Your task to perform on an android device: turn on showing notifications on the lock screen Image 0: 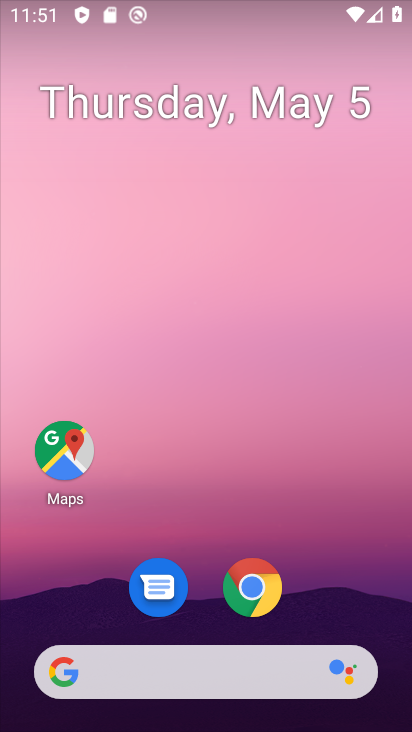
Step 0: drag from (386, 619) to (359, 531)
Your task to perform on an android device: turn on showing notifications on the lock screen Image 1: 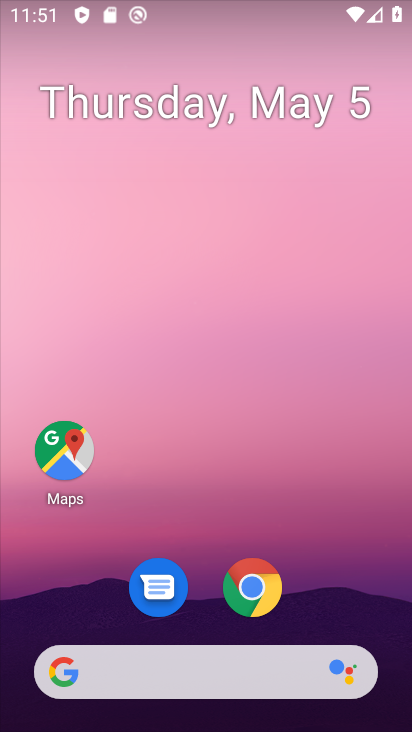
Step 1: drag from (348, 484) to (305, 164)
Your task to perform on an android device: turn on showing notifications on the lock screen Image 2: 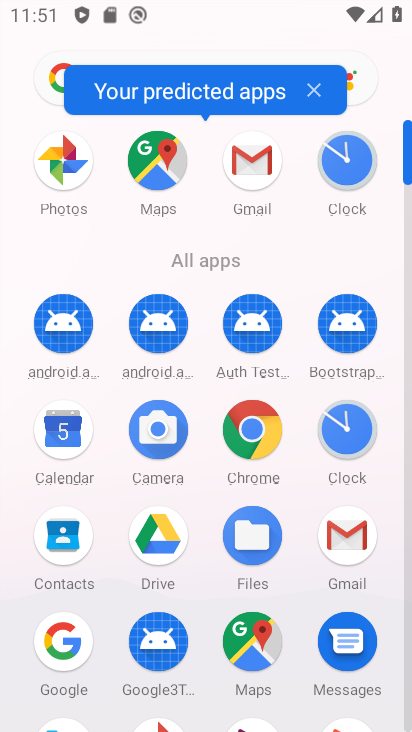
Step 2: drag from (297, 656) to (251, 360)
Your task to perform on an android device: turn on showing notifications on the lock screen Image 3: 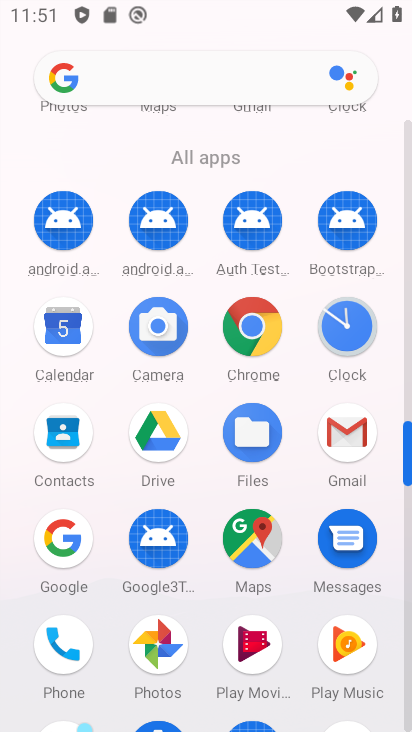
Step 3: drag from (282, 656) to (279, 350)
Your task to perform on an android device: turn on showing notifications on the lock screen Image 4: 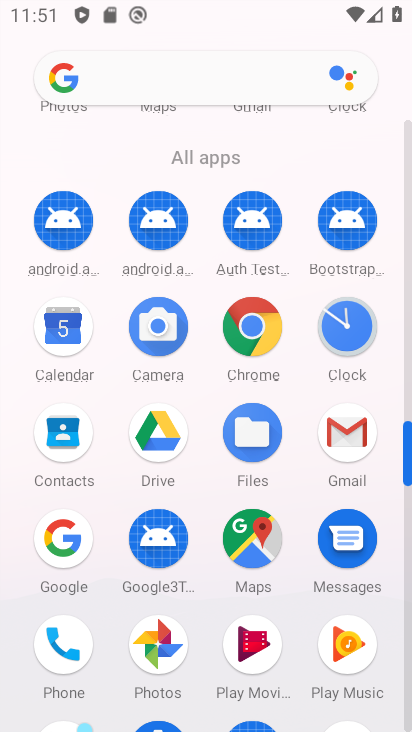
Step 4: drag from (405, 412) to (397, 274)
Your task to perform on an android device: turn on showing notifications on the lock screen Image 5: 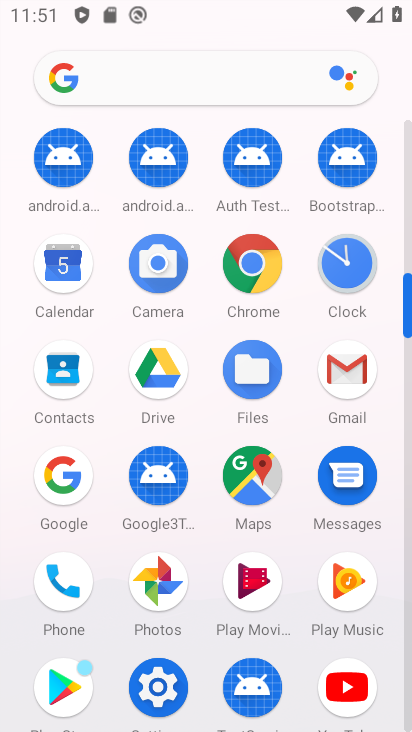
Step 5: click (154, 675)
Your task to perform on an android device: turn on showing notifications on the lock screen Image 6: 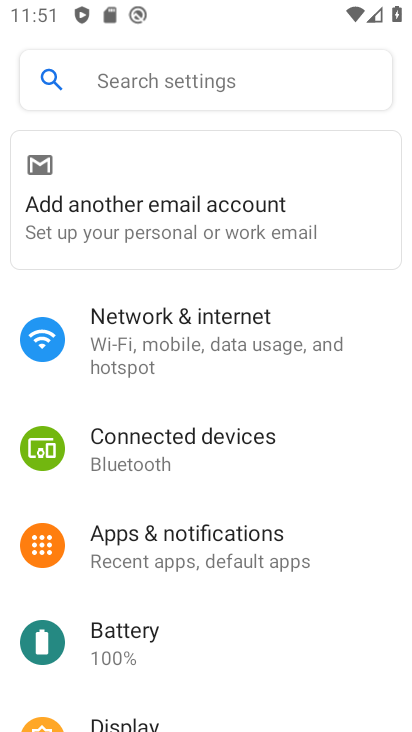
Step 6: click (195, 540)
Your task to perform on an android device: turn on showing notifications on the lock screen Image 7: 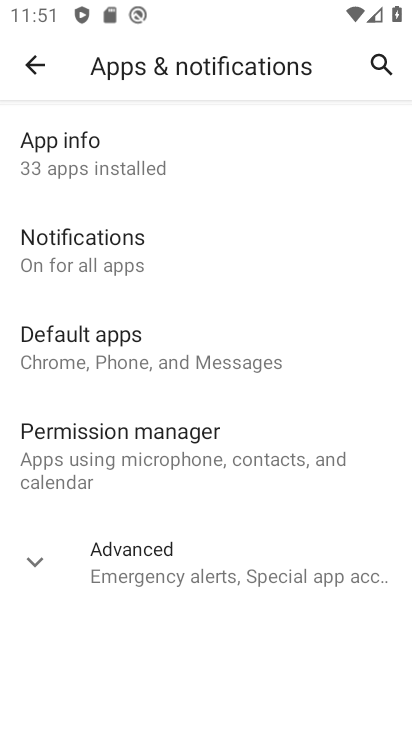
Step 7: drag from (303, 626) to (214, 246)
Your task to perform on an android device: turn on showing notifications on the lock screen Image 8: 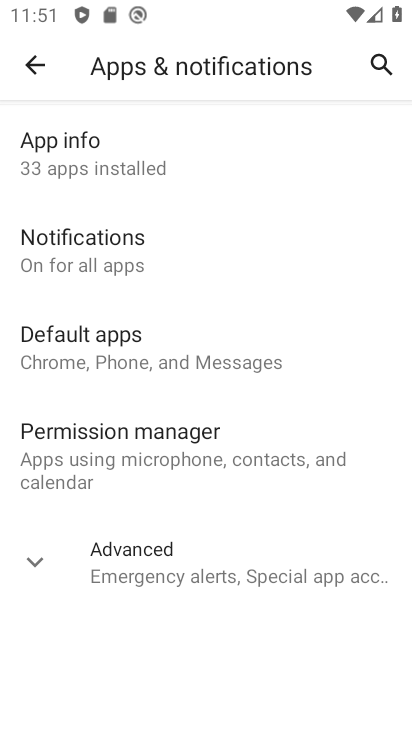
Step 8: click (28, 66)
Your task to perform on an android device: turn on showing notifications on the lock screen Image 9: 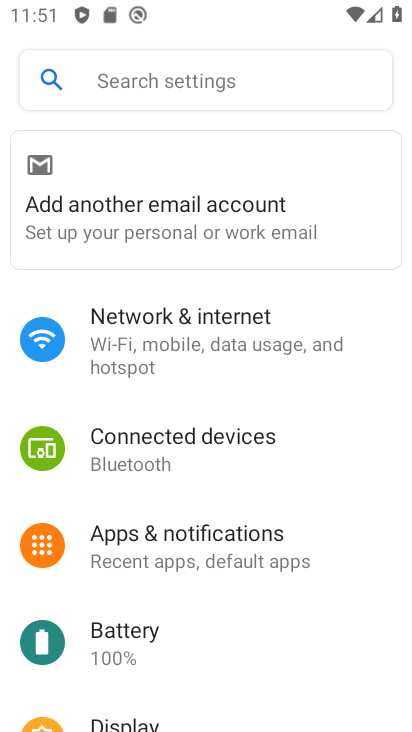
Step 9: click (129, 544)
Your task to perform on an android device: turn on showing notifications on the lock screen Image 10: 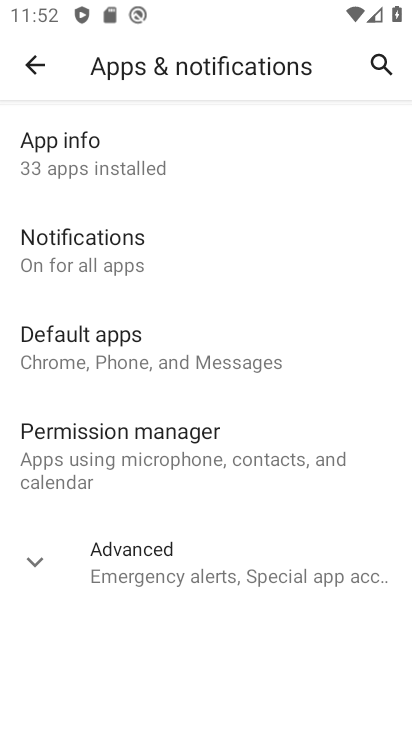
Step 10: drag from (288, 164) to (306, 510)
Your task to perform on an android device: turn on showing notifications on the lock screen Image 11: 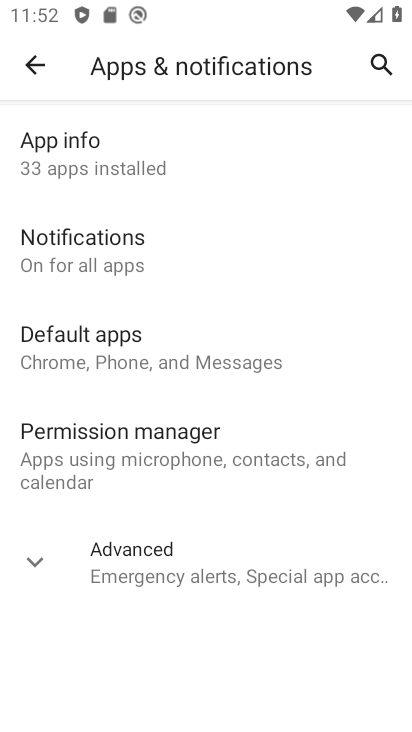
Step 11: click (21, 558)
Your task to perform on an android device: turn on showing notifications on the lock screen Image 12: 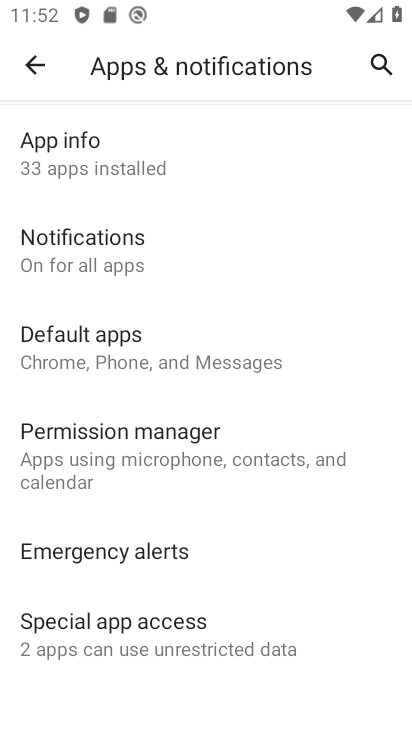
Step 12: click (101, 243)
Your task to perform on an android device: turn on showing notifications on the lock screen Image 13: 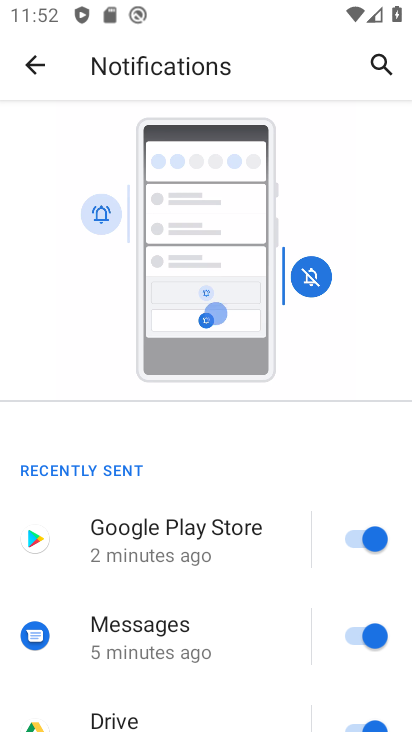
Step 13: drag from (286, 688) to (197, 378)
Your task to perform on an android device: turn on showing notifications on the lock screen Image 14: 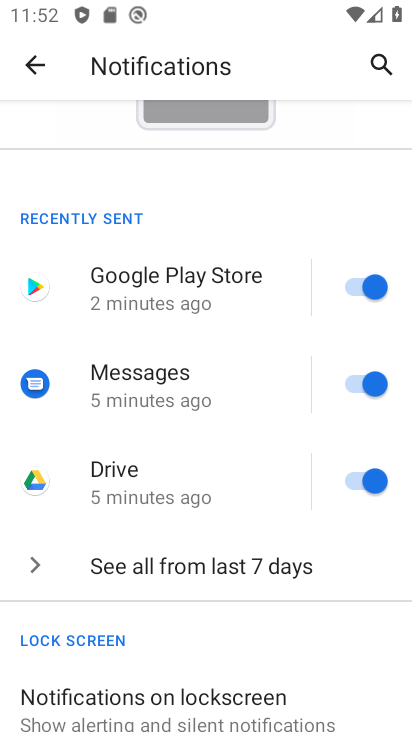
Step 14: drag from (268, 652) to (212, 377)
Your task to perform on an android device: turn on showing notifications on the lock screen Image 15: 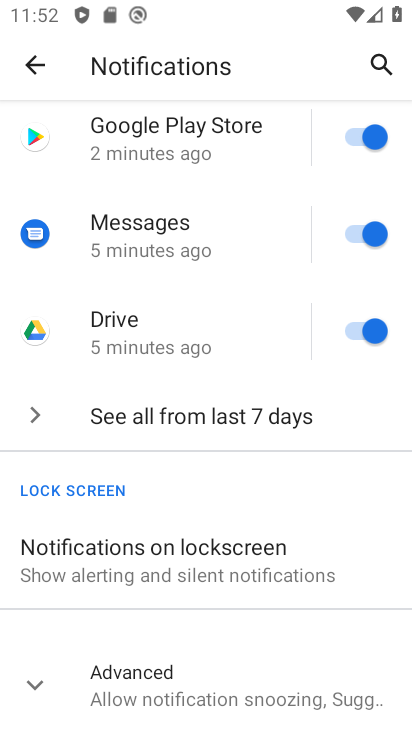
Step 15: click (142, 561)
Your task to perform on an android device: turn on showing notifications on the lock screen Image 16: 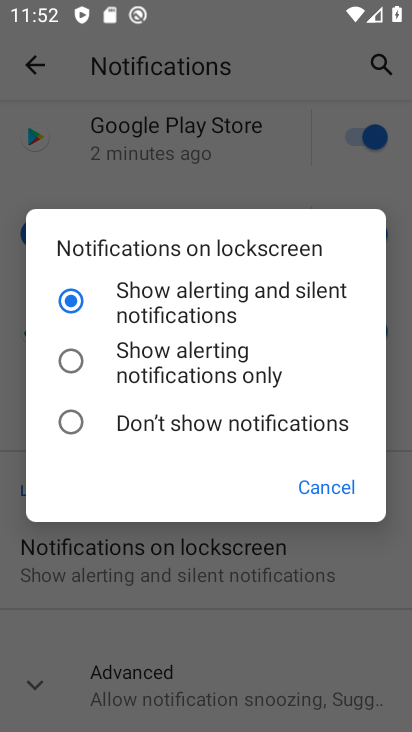
Step 16: task complete